Your task to perform on an android device: turn notification dots off Image 0: 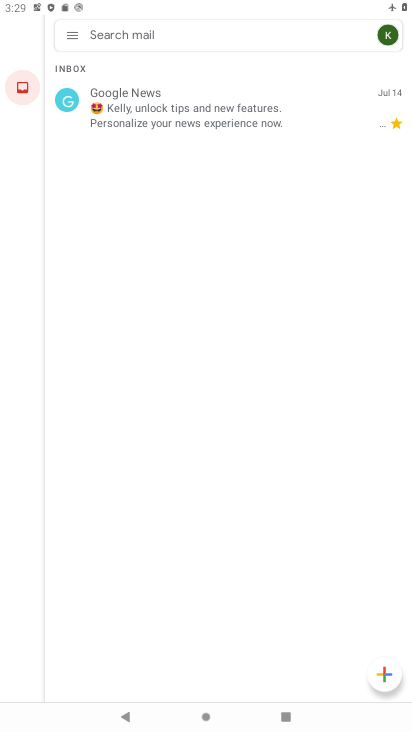
Step 0: press home button
Your task to perform on an android device: turn notification dots off Image 1: 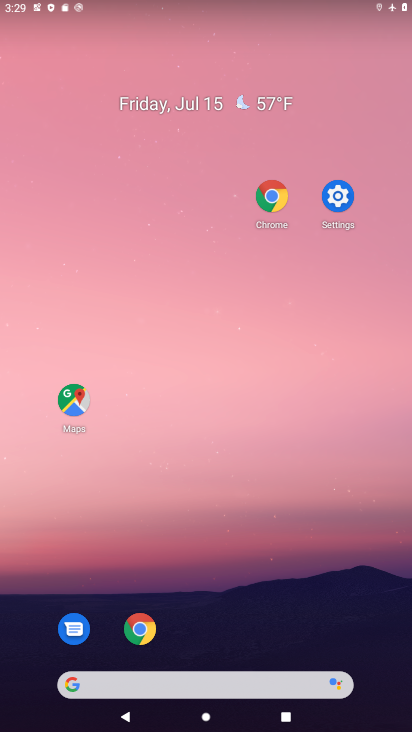
Step 1: drag from (286, 687) to (207, 9)
Your task to perform on an android device: turn notification dots off Image 2: 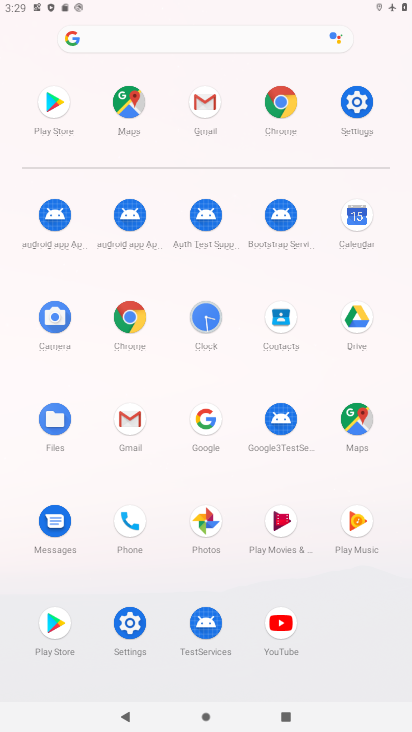
Step 2: click (361, 106)
Your task to perform on an android device: turn notification dots off Image 3: 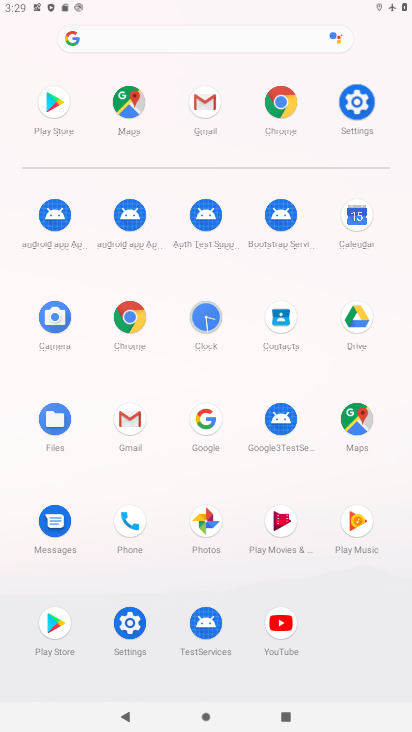
Step 3: click (361, 106)
Your task to perform on an android device: turn notification dots off Image 4: 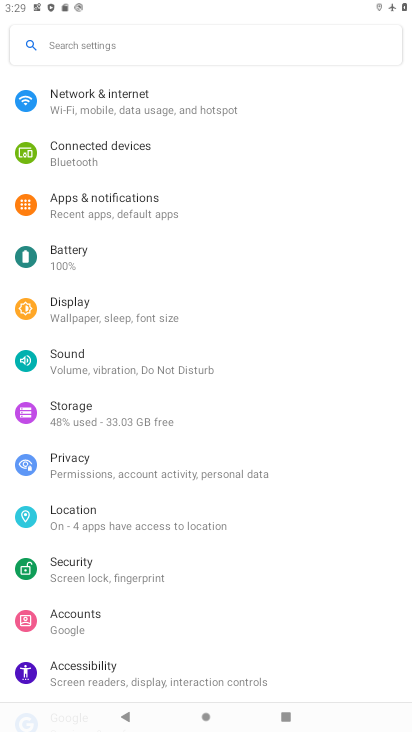
Step 4: click (82, 214)
Your task to perform on an android device: turn notification dots off Image 5: 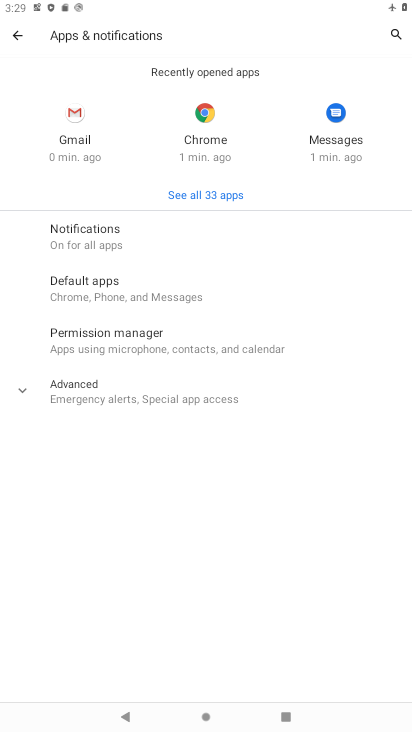
Step 5: click (84, 231)
Your task to perform on an android device: turn notification dots off Image 6: 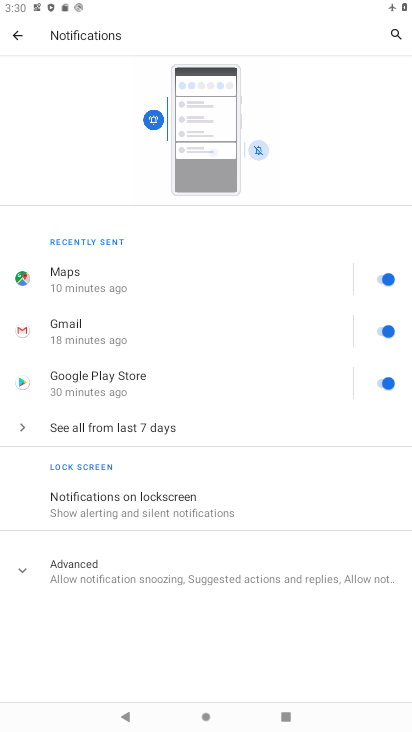
Step 6: click (128, 506)
Your task to perform on an android device: turn notification dots off Image 7: 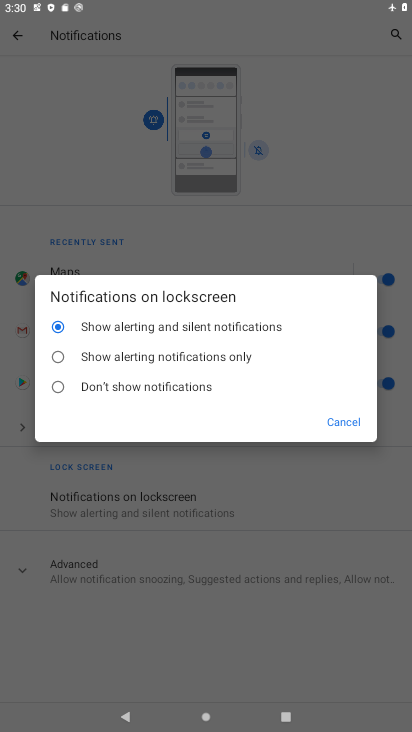
Step 7: click (348, 416)
Your task to perform on an android device: turn notification dots off Image 8: 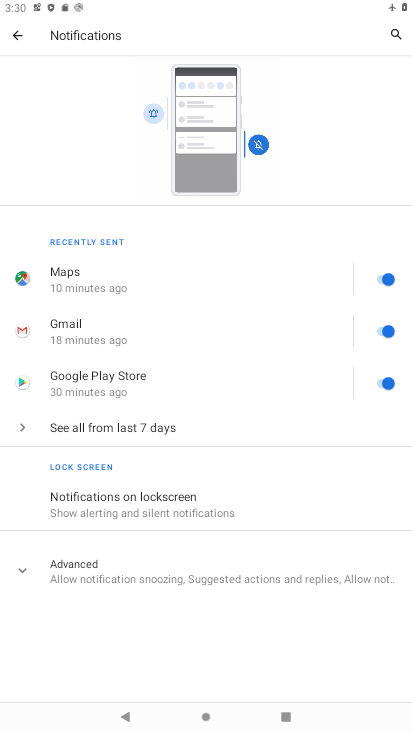
Step 8: click (74, 578)
Your task to perform on an android device: turn notification dots off Image 9: 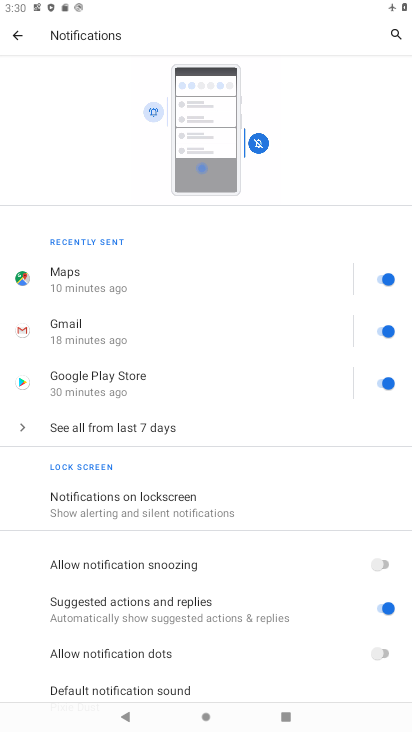
Step 9: task complete